Your task to perform on an android device: turn on airplane mode Image 0: 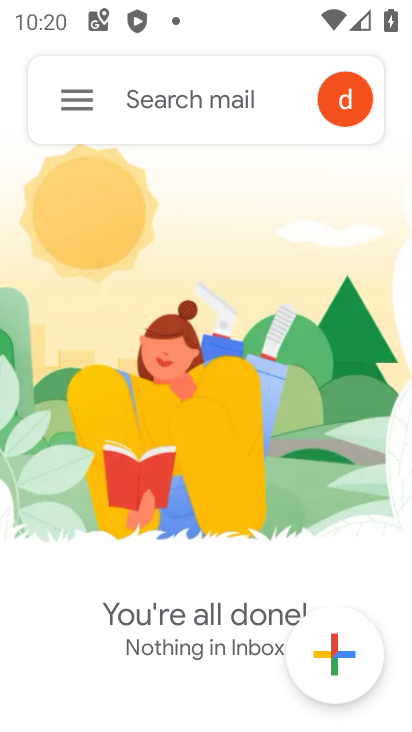
Step 0: press home button
Your task to perform on an android device: turn on airplane mode Image 1: 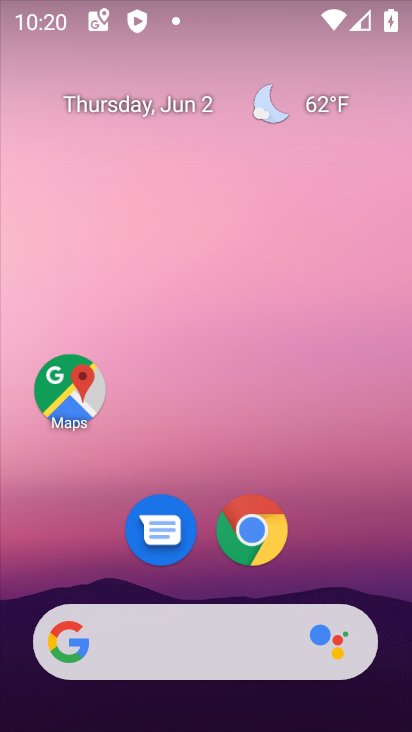
Step 1: drag from (101, 537) to (230, 44)
Your task to perform on an android device: turn on airplane mode Image 2: 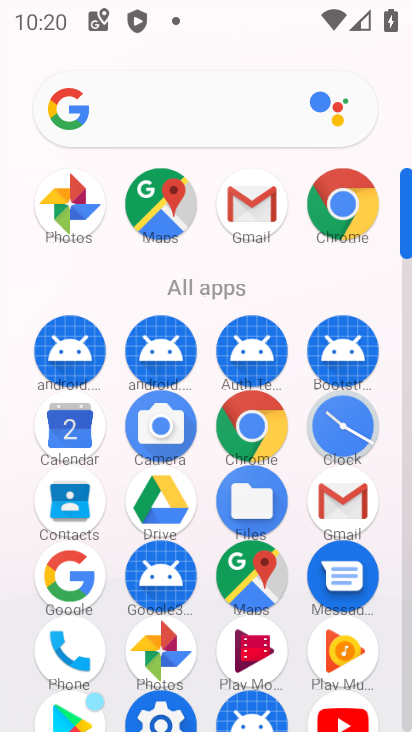
Step 2: drag from (245, 654) to (329, 324)
Your task to perform on an android device: turn on airplane mode Image 3: 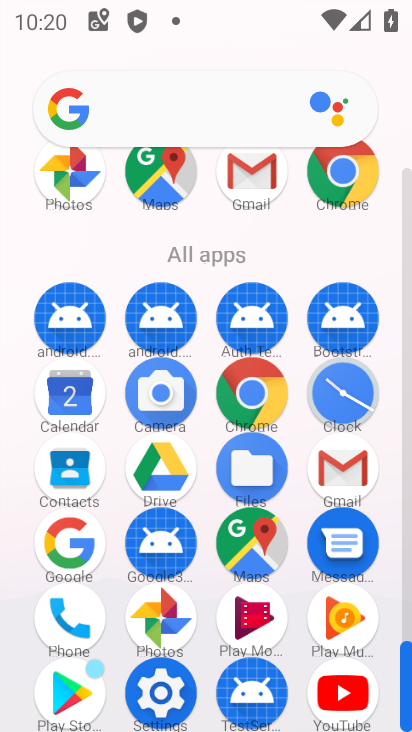
Step 3: click (170, 683)
Your task to perform on an android device: turn on airplane mode Image 4: 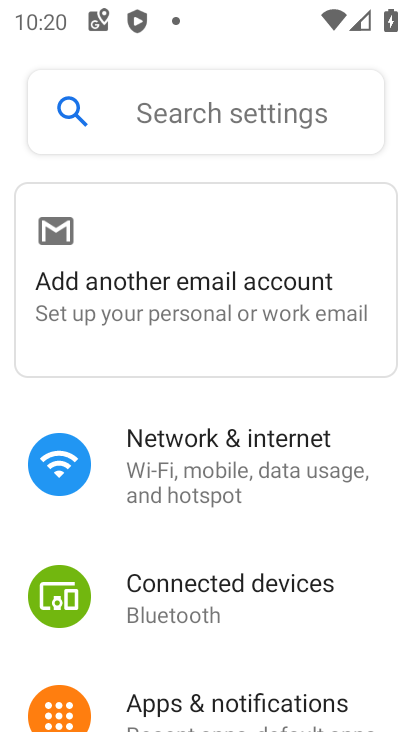
Step 4: click (248, 500)
Your task to perform on an android device: turn on airplane mode Image 5: 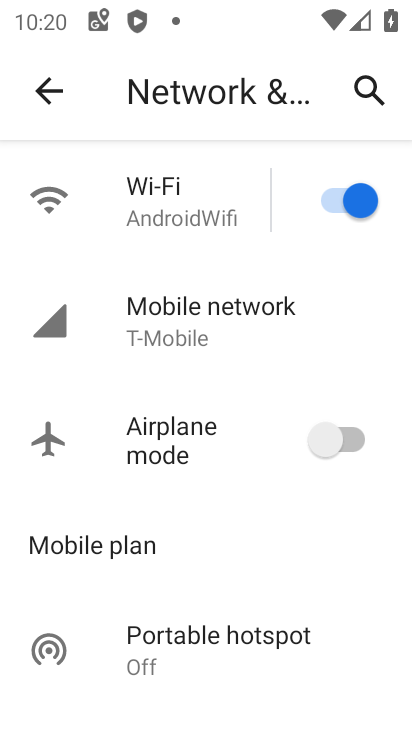
Step 5: click (366, 446)
Your task to perform on an android device: turn on airplane mode Image 6: 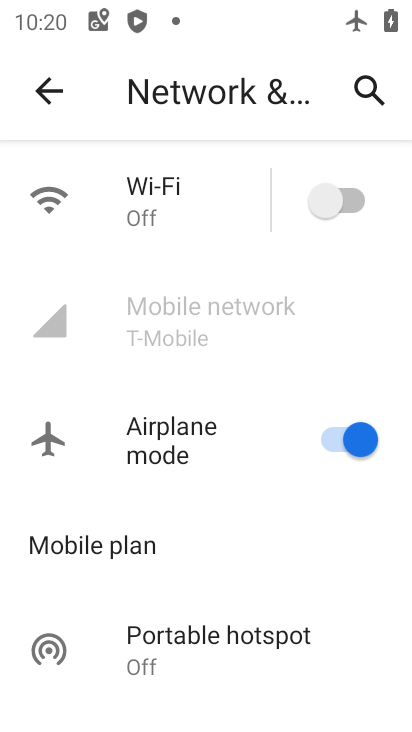
Step 6: task complete